Your task to perform on an android device: Go to notification settings Image 0: 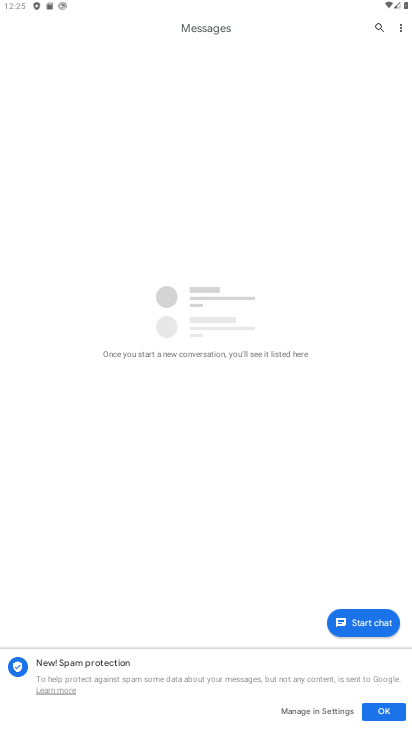
Step 0: press home button
Your task to perform on an android device: Go to notification settings Image 1: 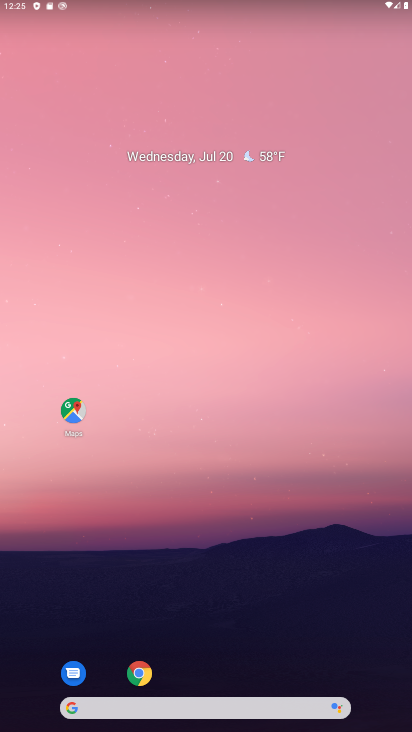
Step 1: drag from (226, 430) to (245, 218)
Your task to perform on an android device: Go to notification settings Image 2: 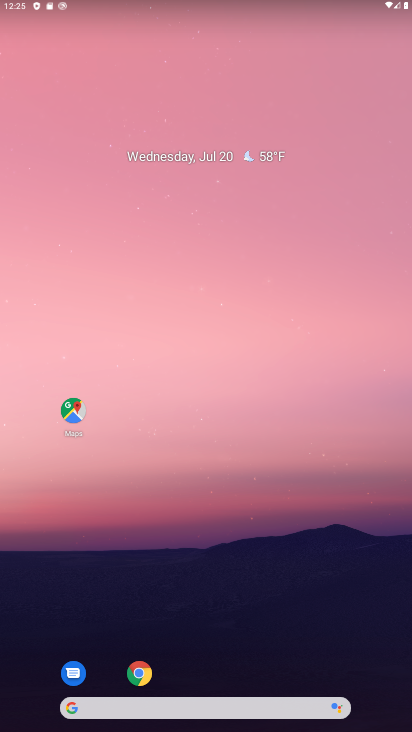
Step 2: drag from (241, 608) to (315, 63)
Your task to perform on an android device: Go to notification settings Image 3: 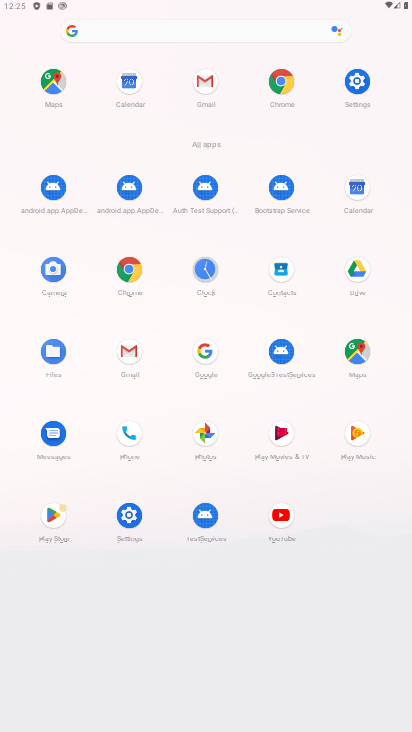
Step 3: click (121, 524)
Your task to perform on an android device: Go to notification settings Image 4: 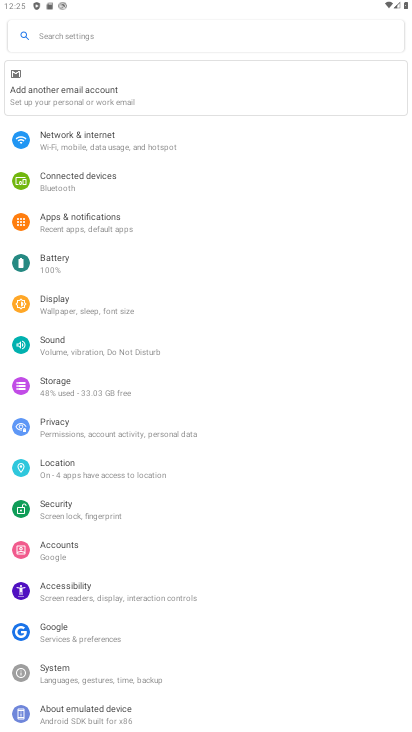
Step 4: click (80, 221)
Your task to perform on an android device: Go to notification settings Image 5: 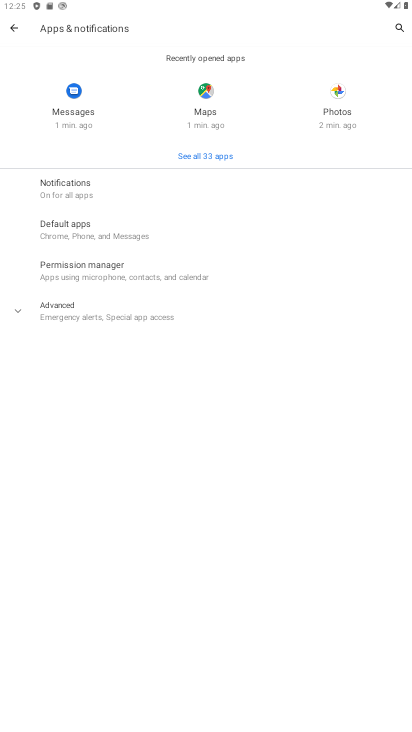
Step 5: click (83, 185)
Your task to perform on an android device: Go to notification settings Image 6: 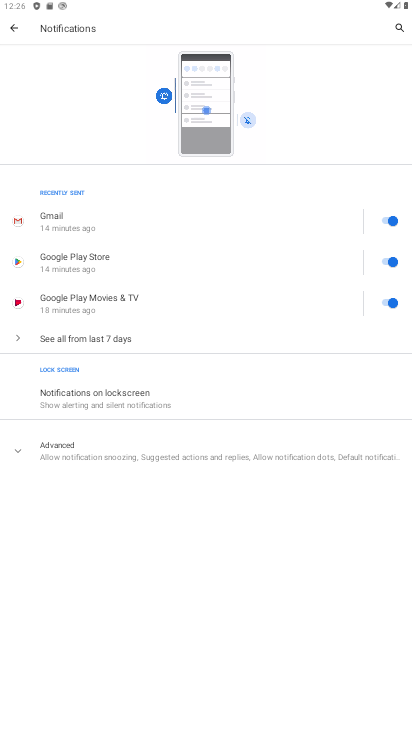
Step 6: task complete